Your task to perform on an android device: Open my contact list Image 0: 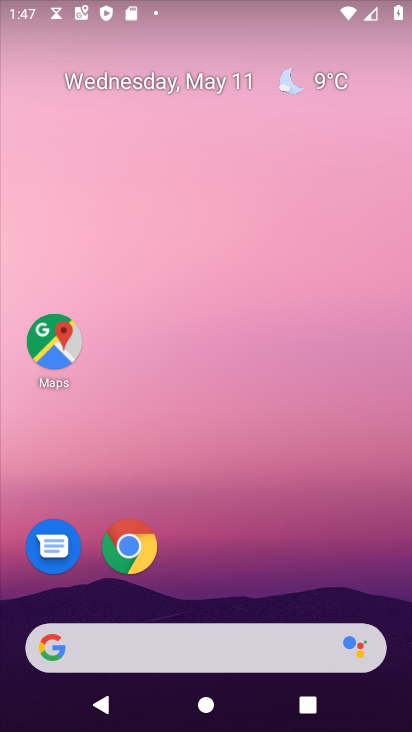
Step 0: drag from (229, 651) to (262, 118)
Your task to perform on an android device: Open my contact list Image 1: 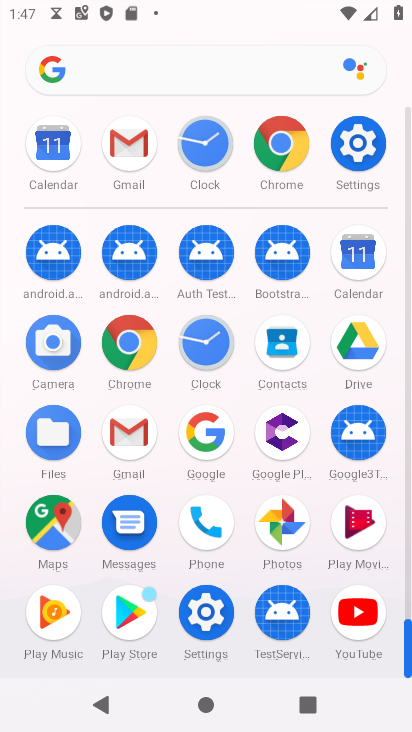
Step 1: click (277, 349)
Your task to perform on an android device: Open my contact list Image 2: 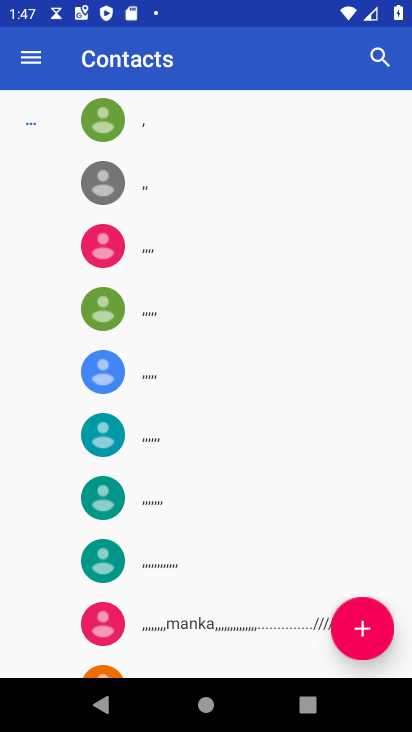
Step 2: task complete